Your task to perform on an android device: allow notifications from all sites in the chrome app Image 0: 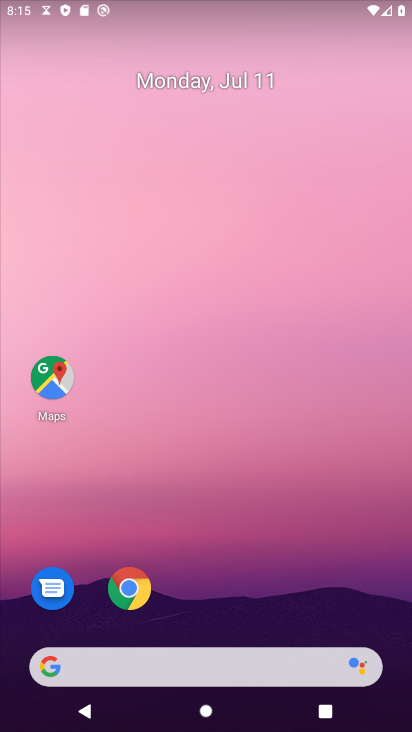
Step 0: press home button
Your task to perform on an android device: allow notifications from all sites in the chrome app Image 1: 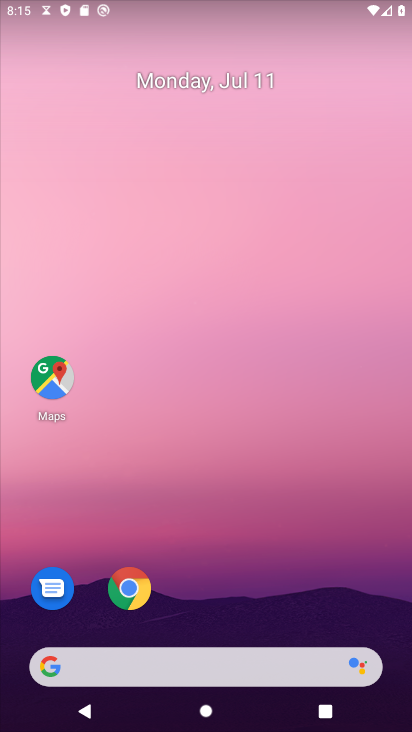
Step 1: click (136, 568)
Your task to perform on an android device: allow notifications from all sites in the chrome app Image 2: 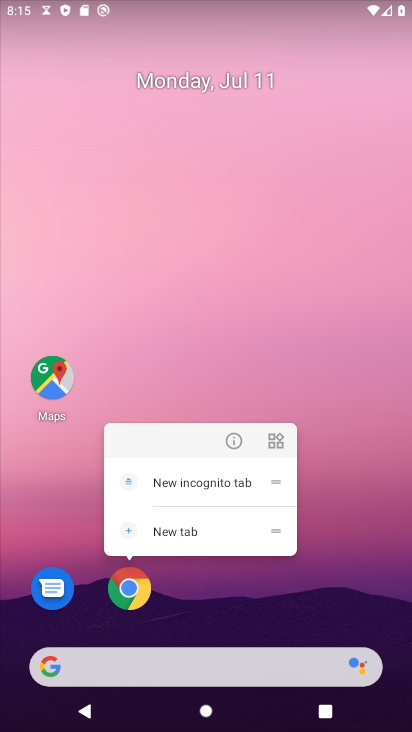
Step 2: click (125, 575)
Your task to perform on an android device: allow notifications from all sites in the chrome app Image 3: 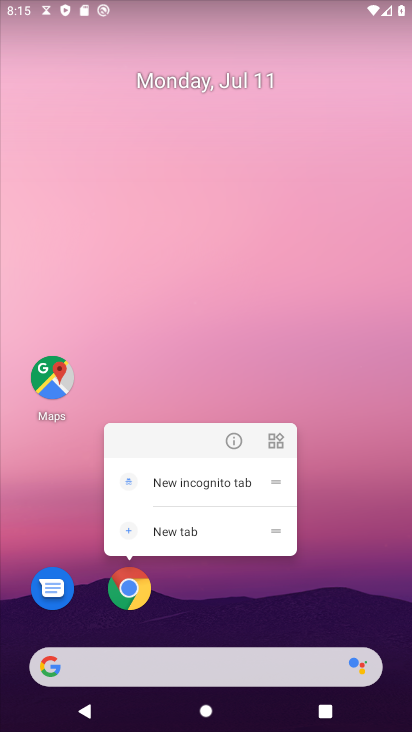
Step 3: click (125, 575)
Your task to perform on an android device: allow notifications from all sites in the chrome app Image 4: 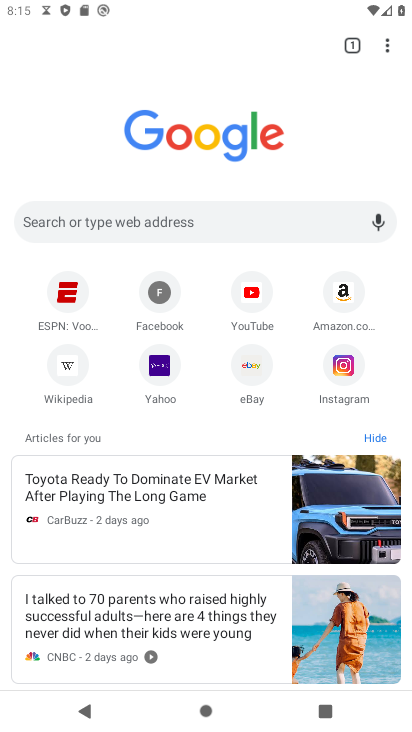
Step 4: drag from (392, 43) to (234, 383)
Your task to perform on an android device: allow notifications from all sites in the chrome app Image 5: 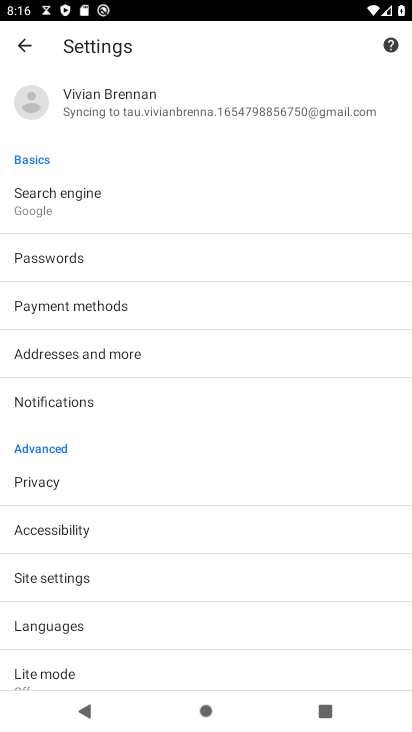
Step 5: click (54, 402)
Your task to perform on an android device: allow notifications from all sites in the chrome app Image 6: 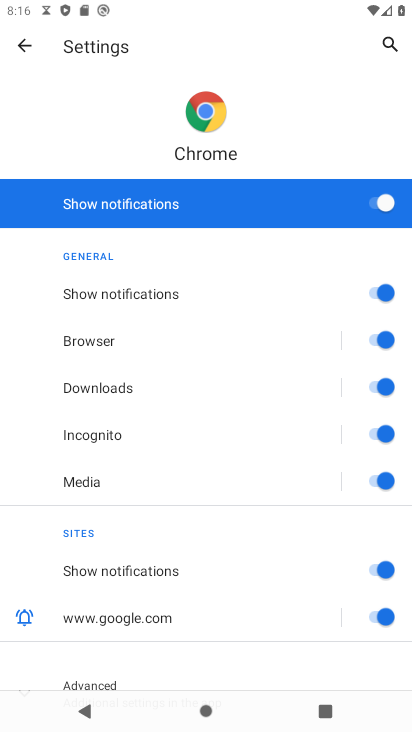
Step 6: task complete